Your task to perform on an android device: Open Android settings Image 0: 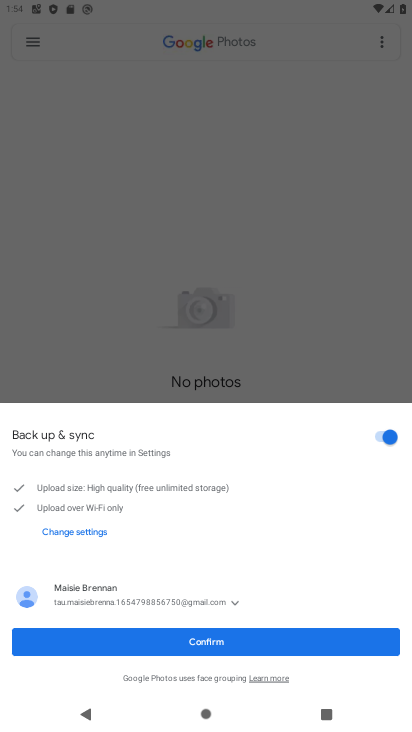
Step 0: press home button
Your task to perform on an android device: Open Android settings Image 1: 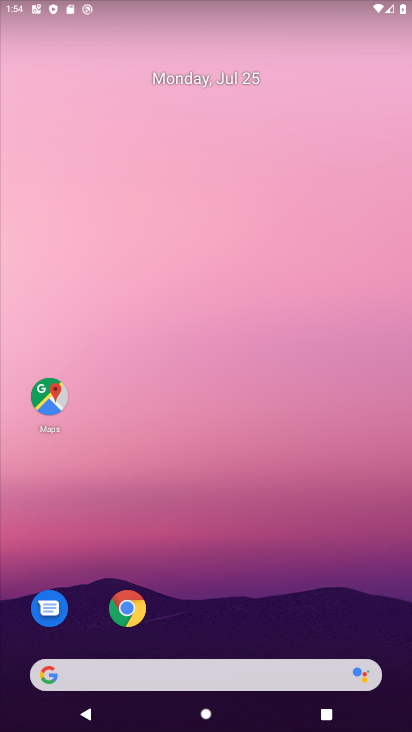
Step 1: drag from (250, 559) to (286, 294)
Your task to perform on an android device: Open Android settings Image 2: 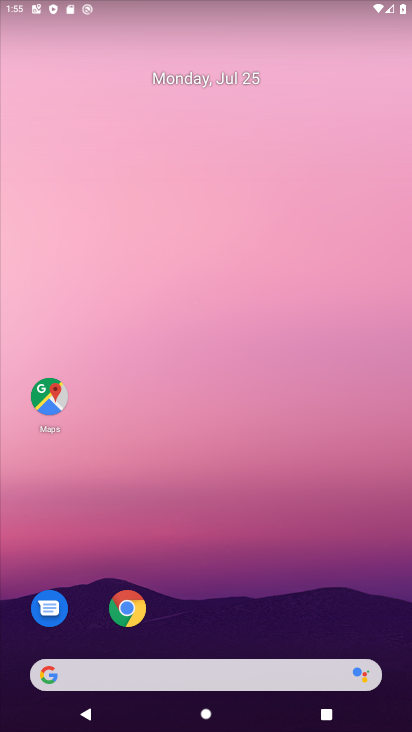
Step 2: click (398, 103)
Your task to perform on an android device: Open Android settings Image 3: 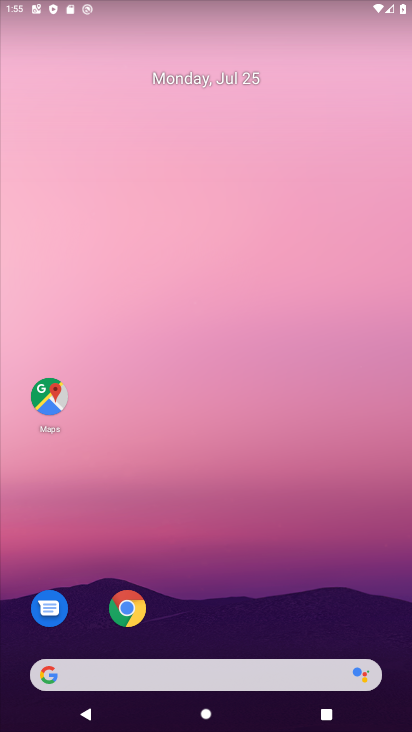
Step 3: drag from (308, 512) to (352, 99)
Your task to perform on an android device: Open Android settings Image 4: 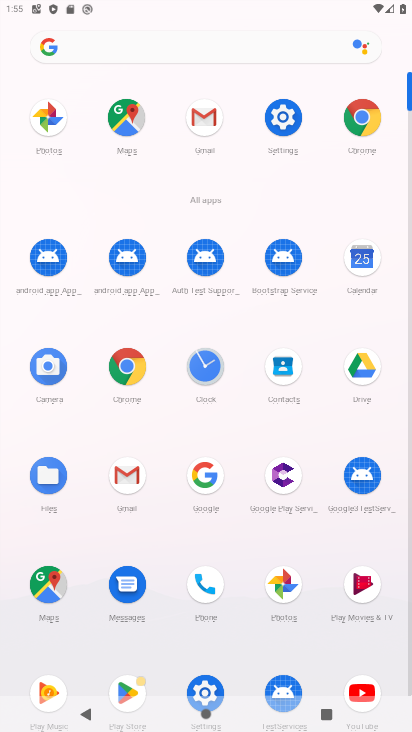
Step 4: click (277, 119)
Your task to perform on an android device: Open Android settings Image 5: 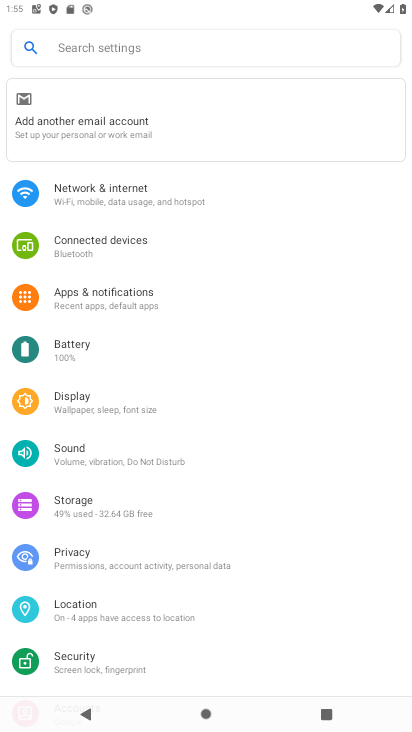
Step 5: task complete